Your task to perform on an android device: Search for razer thresher on bestbuy, select the first entry, and add it to the cart. Image 0: 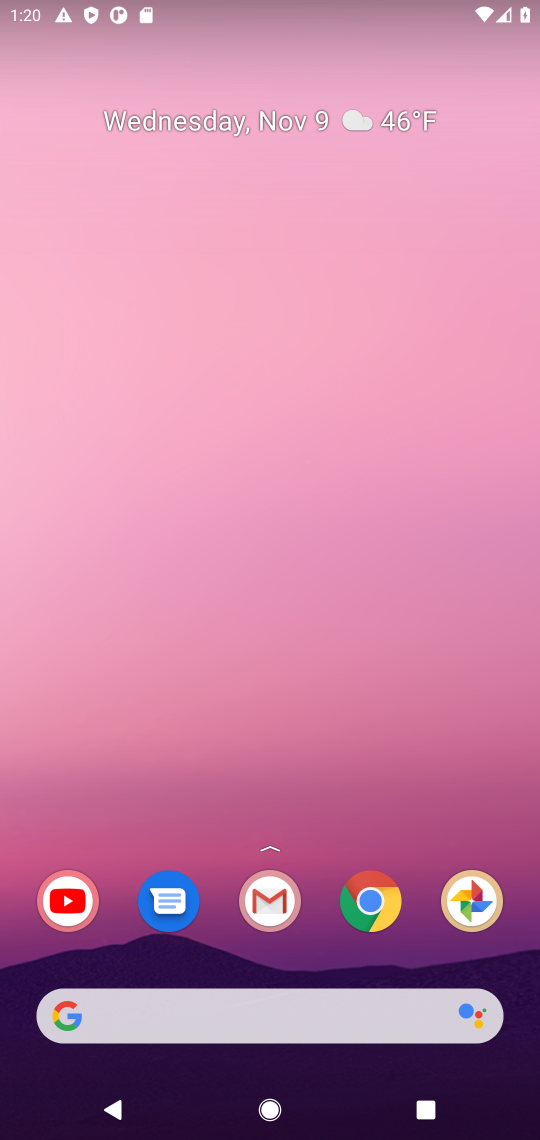
Step 0: click (358, 899)
Your task to perform on an android device: Search for razer thresher on bestbuy, select the first entry, and add it to the cart. Image 1: 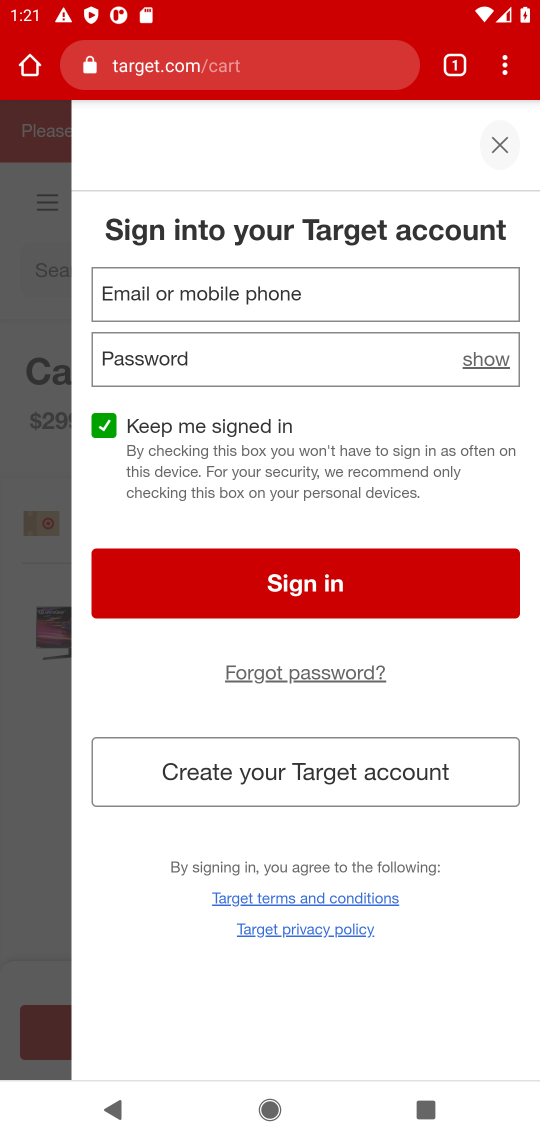
Step 1: click (295, 50)
Your task to perform on an android device: Search for razer thresher on bestbuy, select the first entry, and add it to the cart. Image 2: 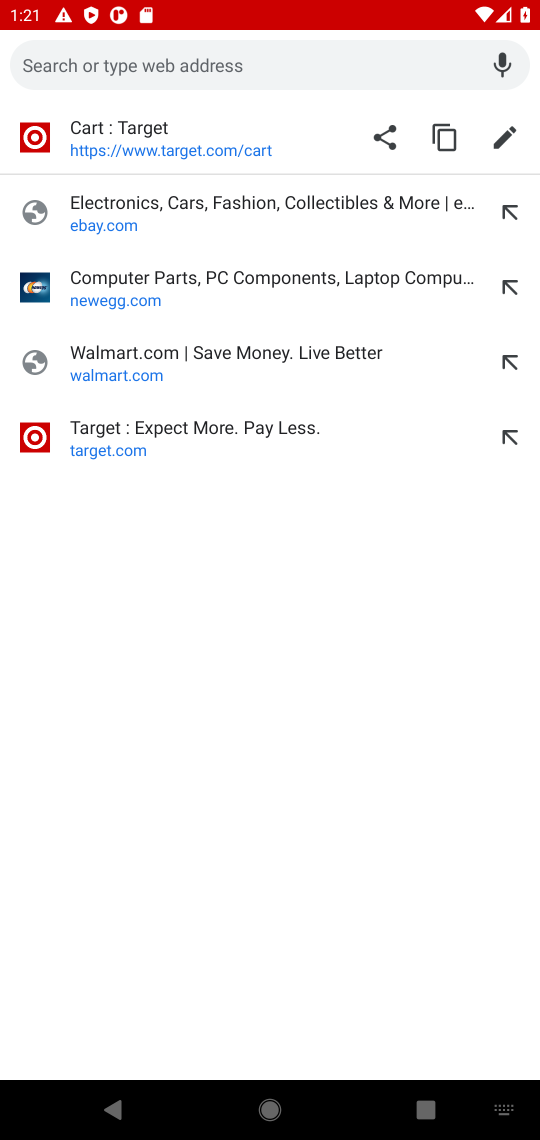
Step 2: type "bestbuy"
Your task to perform on an android device: Search for razer thresher on bestbuy, select the first entry, and add it to the cart. Image 3: 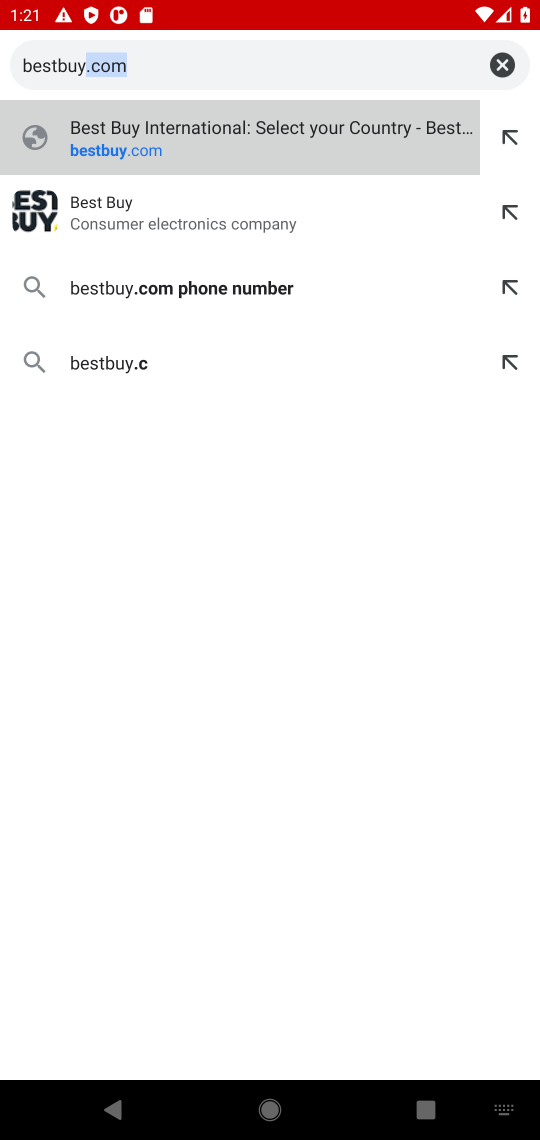
Step 3: press enter
Your task to perform on an android device: Search for razer thresher on bestbuy, select the first entry, and add it to the cart. Image 4: 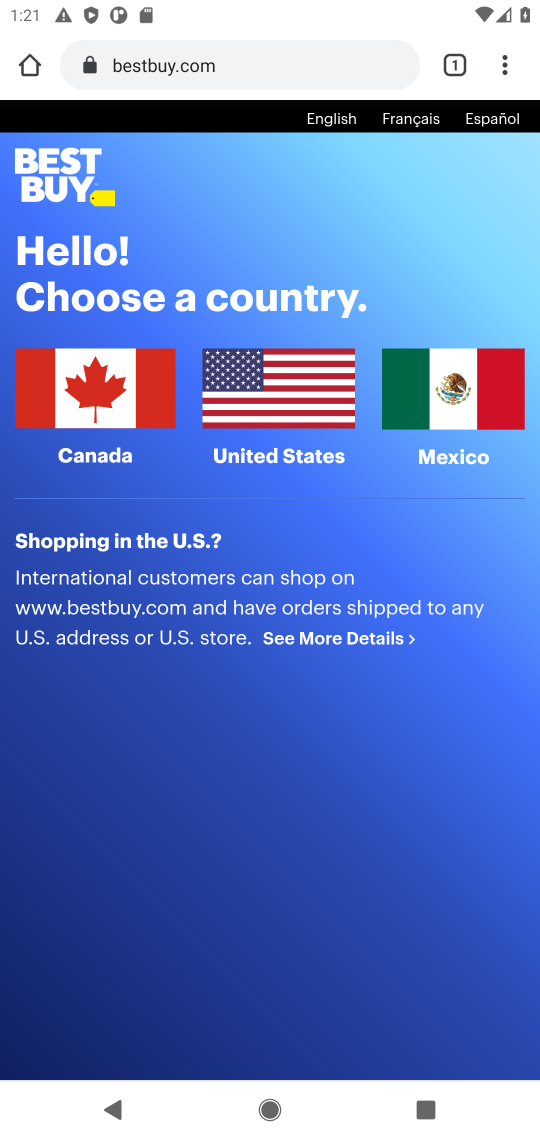
Step 4: click (251, 372)
Your task to perform on an android device: Search for razer thresher on bestbuy, select the first entry, and add it to the cart. Image 5: 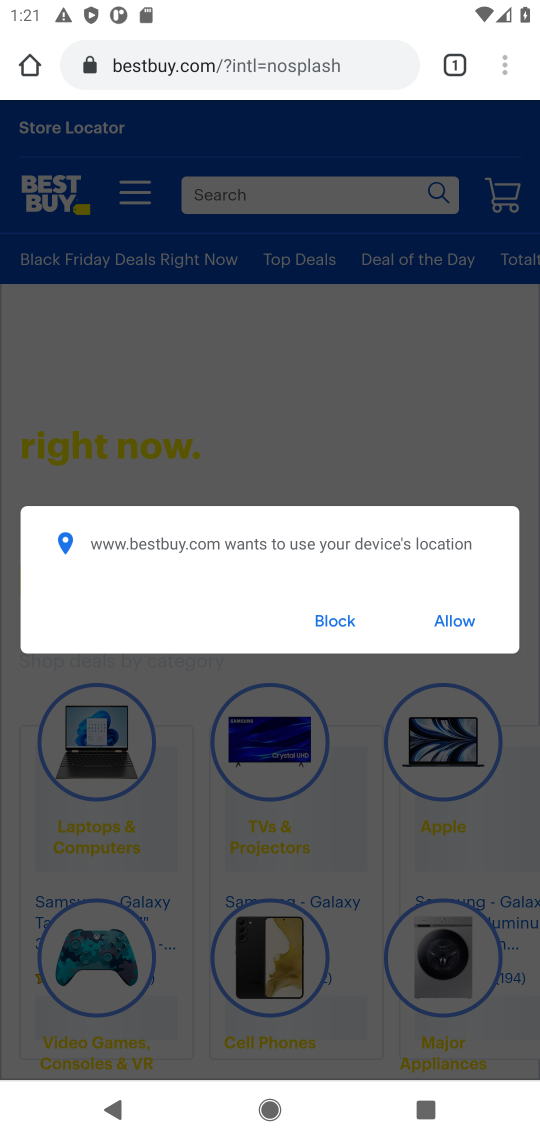
Step 5: click (343, 625)
Your task to perform on an android device: Search for razer thresher on bestbuy, select the first entry, and add it to the cart. Image 6: 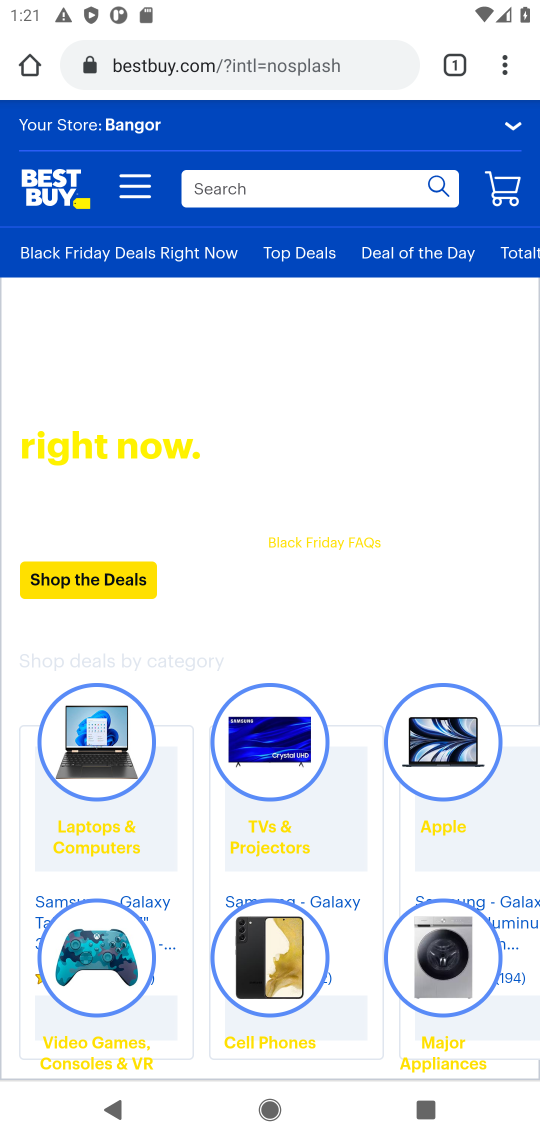
Step 6: click (357, 206)
Your task to perform on an android device: Search for razer thresher on bestbuy, select the first entry, and add it to the cart. Image 7: 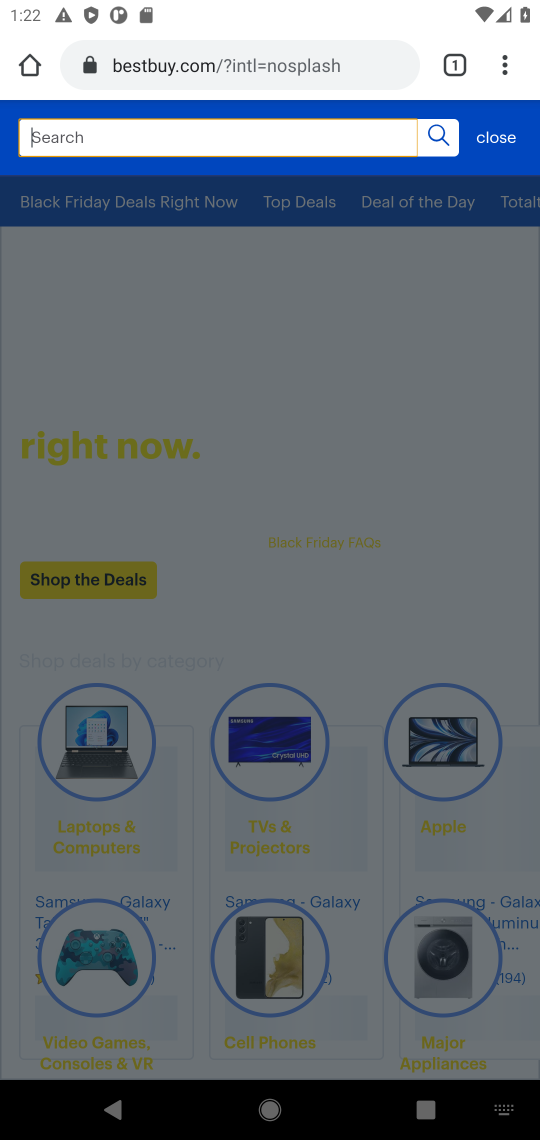
Step 7: type "razer thresher"
Your task to perform on an android device: Search for razer thresher on bestbuy, select the first entry, and add it to the cart. Image 8: 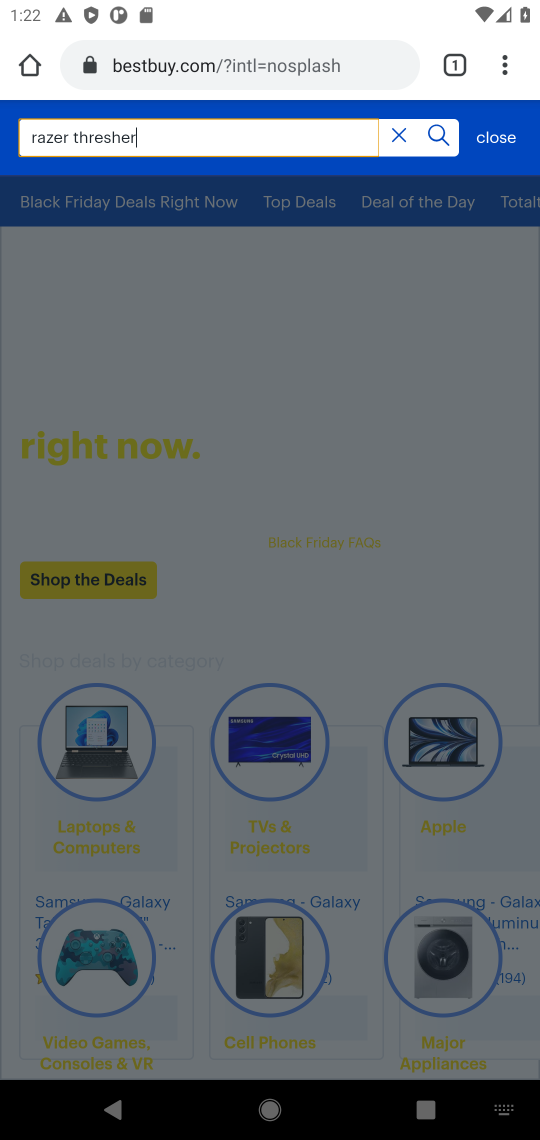
Step 8: press enter
Your task to perform on an android device: Search for razer thresher on bestbuy, select the first entry, and add it to the cart. Image 9: 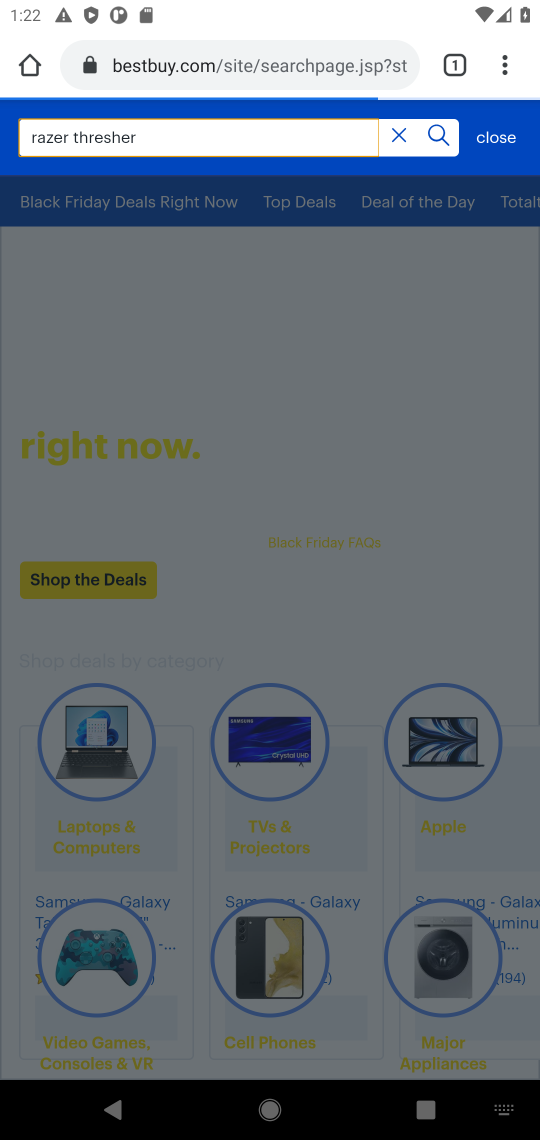
Step 9: click (255, 289)
Your task to perform on an android device: Search for razer thresher on bestbuy, select the first entry, and add it to the cart. Image 10: 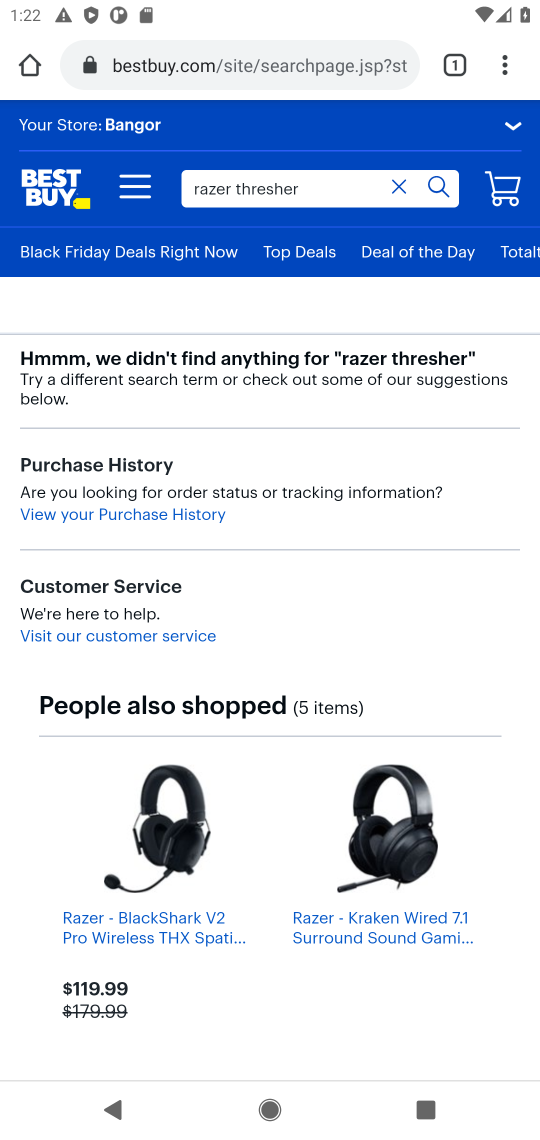
Step 10: drag from (341, 799) to (394, 371)
Your task to perform on an android device: Search for razer thresher on bestbuy, select the first entry, and add it to the cart. Image 11: 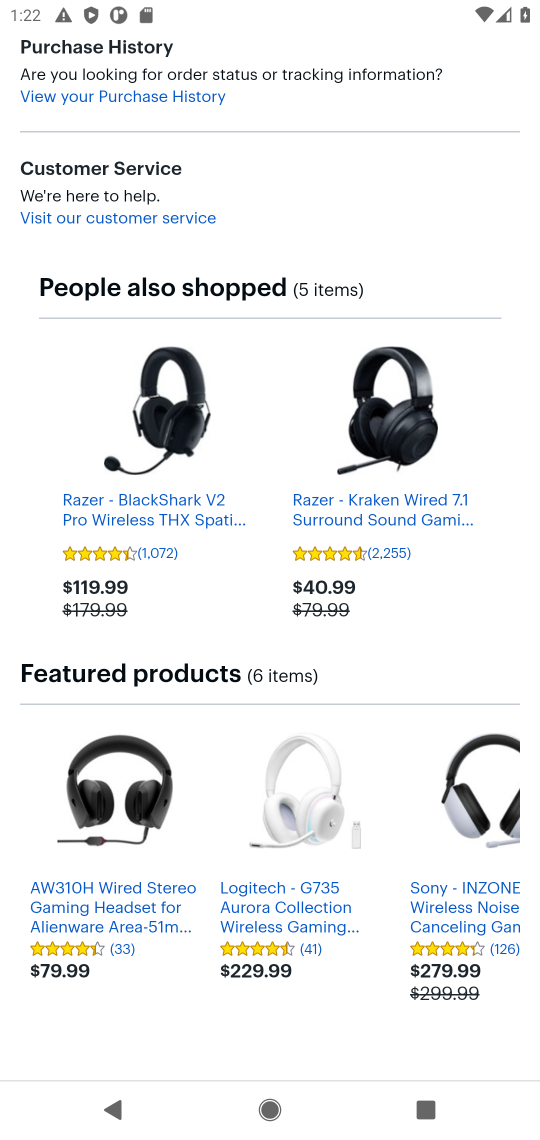
Step 11: drag from (402, 741) to (432, 1079)
Your task to perform on an android device: Search for razer thresher on bestbuy, select the first entry, and add it to the cart. Image 12: 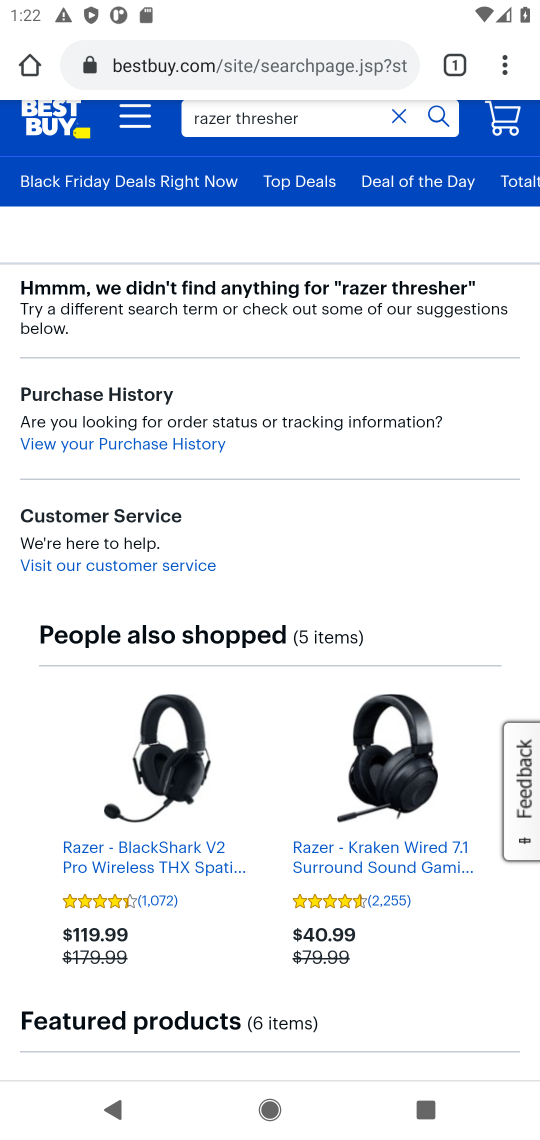
Step 12: drag from (286, 426) to (271, 941)
Your task to perform on an android device: Search for razer thresher on bestbuy, select the first entry, and add it to the cart. Image 13: 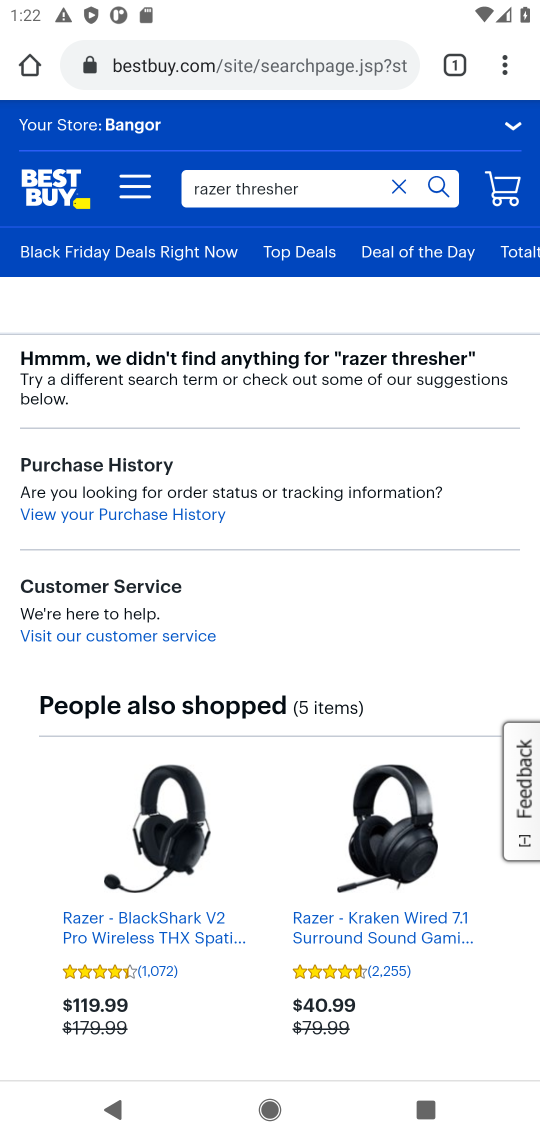
Step 13: click (402, 187)
Your task to perform on an android device: Search for razer thresher on bestbuy, select the first entry, and add it to the cart. Image 14: 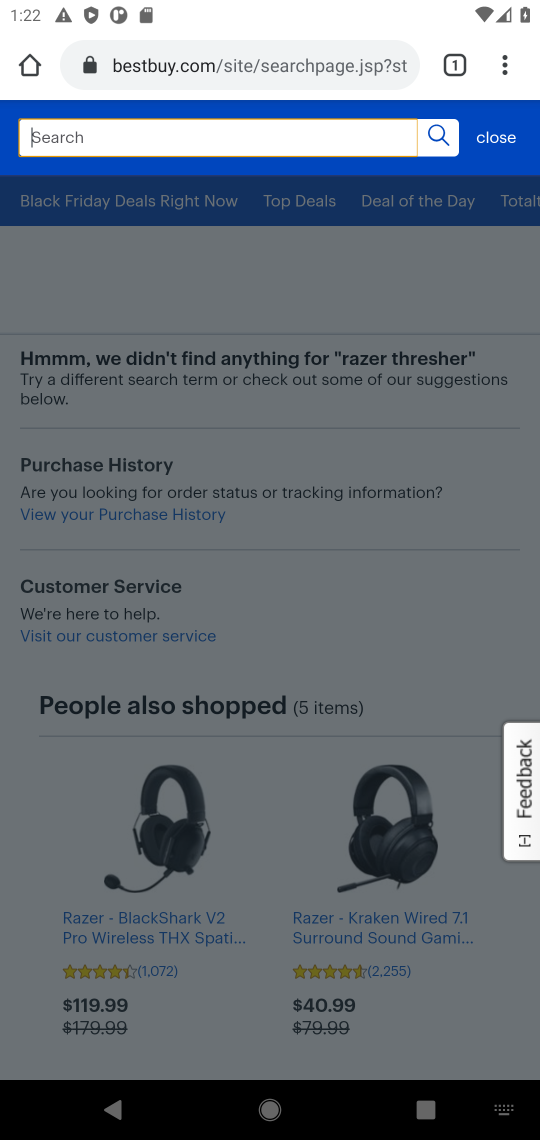
Step 14: press enter
Your task to perform on an android device: Search for razer thresher on bestbuy, select the first entry, and add it to the cart. Image 15: 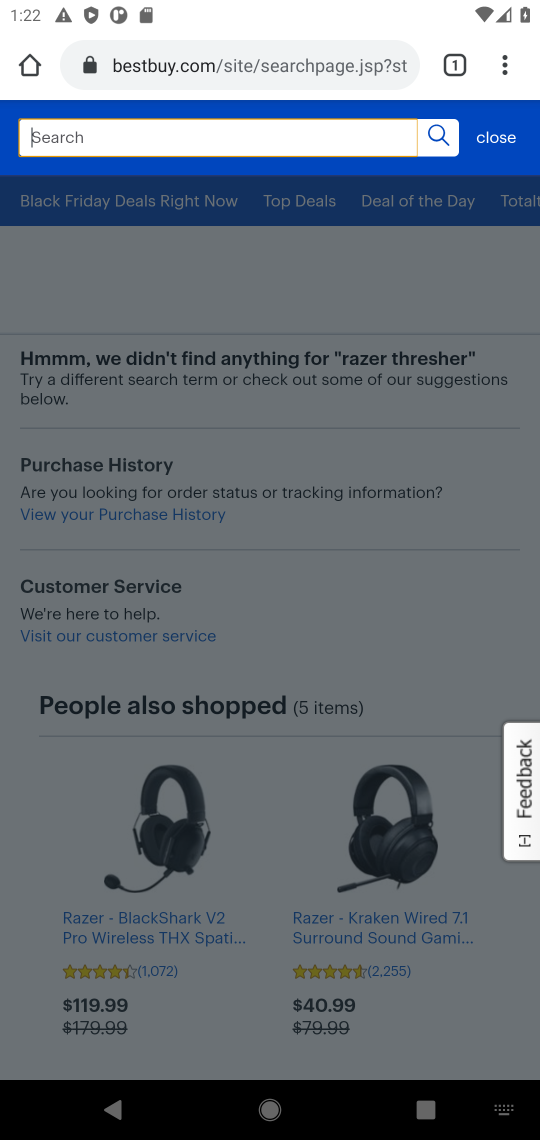
Step 15: type "razer thresher"
Your task to perform on an android device: Search for razer thresher on bestbuy, select the first entry, and add it to the cart. Image 16: 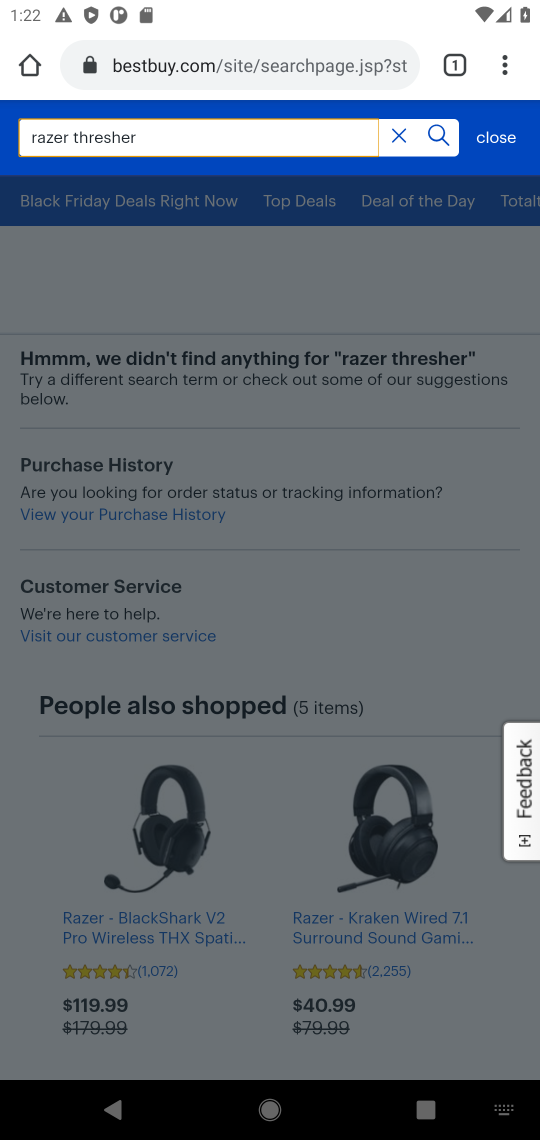
Step 16: click (464, 300)
Your task to perform on an android device: Search for razer thresher on bestbuy, select the first entry, and add it to the cart. Image 17: 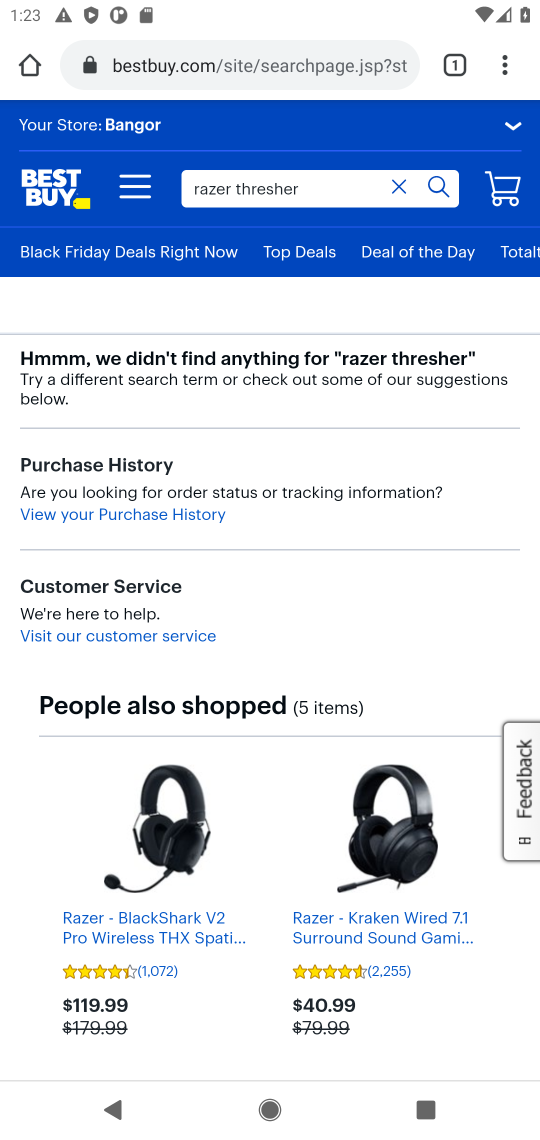
Step 17: task complete